Your task to perform on an android device: toggle javascript in the chrome app Image 0: 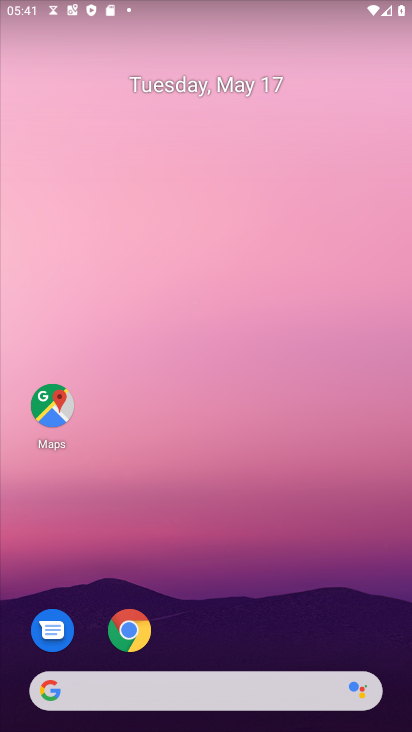
Step 0: click (112, 617)
Your task to perform on an android device: toggle javascript in the chrome app Image 1: 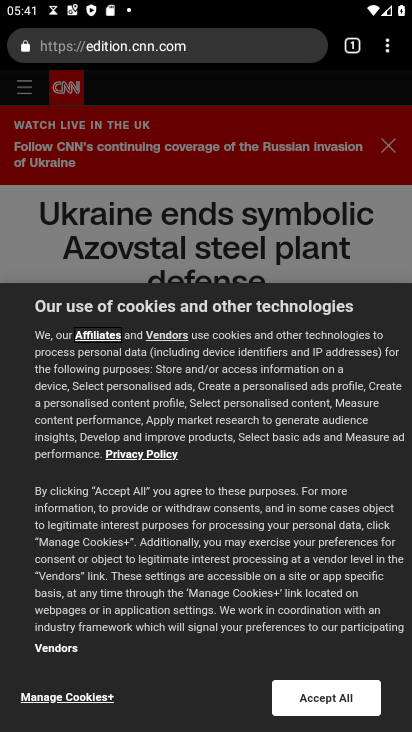
Step 1: drag from (390, 48) to (251, 512)
Your task to perform on an android device: toggle javascript in the chrome app Image 2: 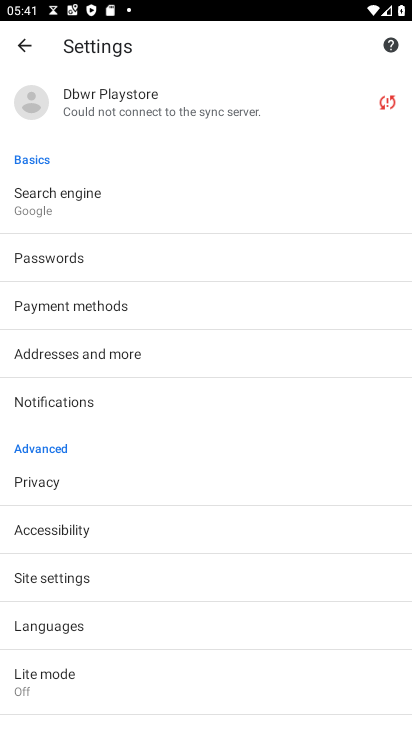
Step 2: drag from (162, 554) to (184, 303)
Your task to perform on an android device: toggle javascript in the chrome app Image 3: 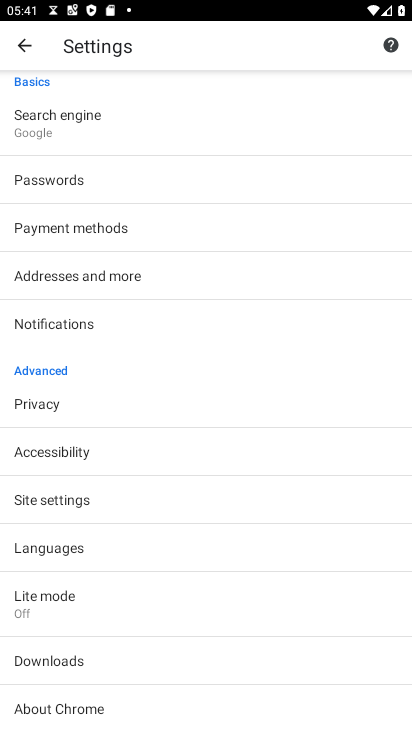
Step 3: click (95, 497)
Your task to perform on an android device: toggle javascript in the chrome app Image 4: 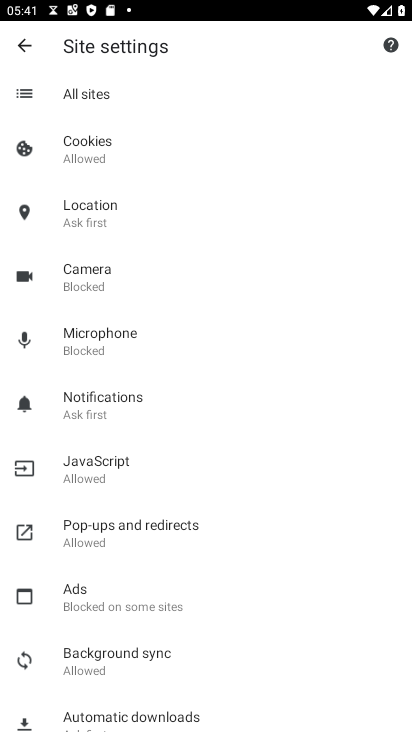
Step 4: click (97, 474)
Your task to perform on an android device: toggle javascript in the chrome app Image 5: 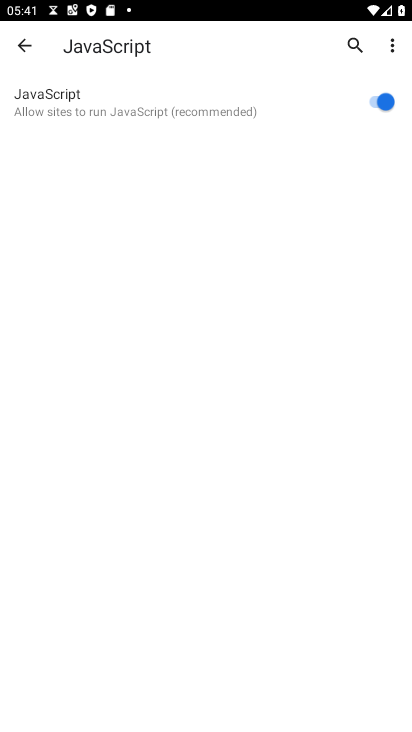
Step 5: click (380, 96)
Your task to perform on an android device: toggle javascript in the chrome app Image 6: 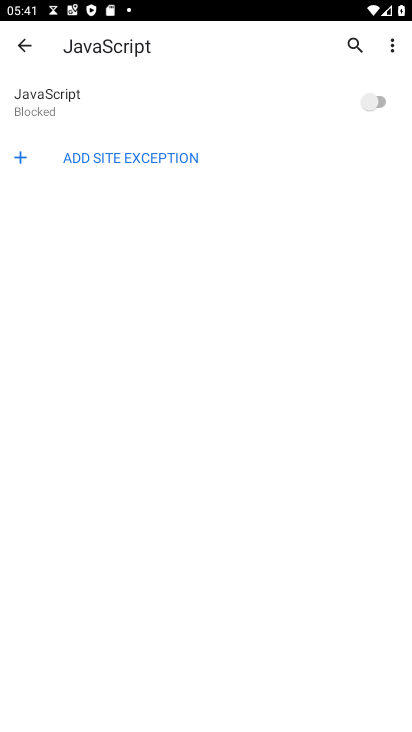
Step 6: task complete